Your task to perform on an android device: Go to sound settings Image 0: 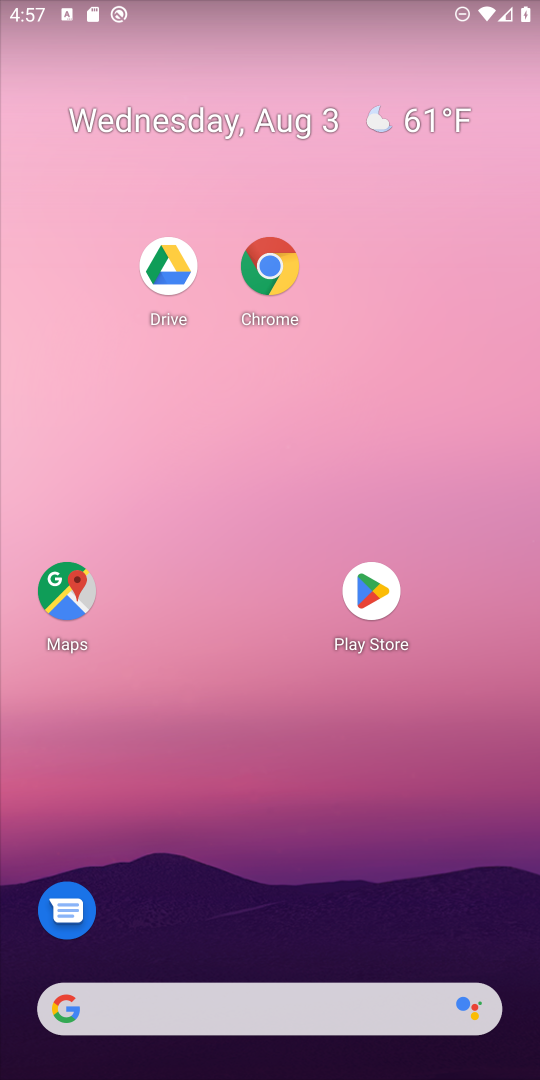
Step 0: drag from (317, 938) to (492, 77)
Your task to perform on an android device: Go to sound settings Image 1: 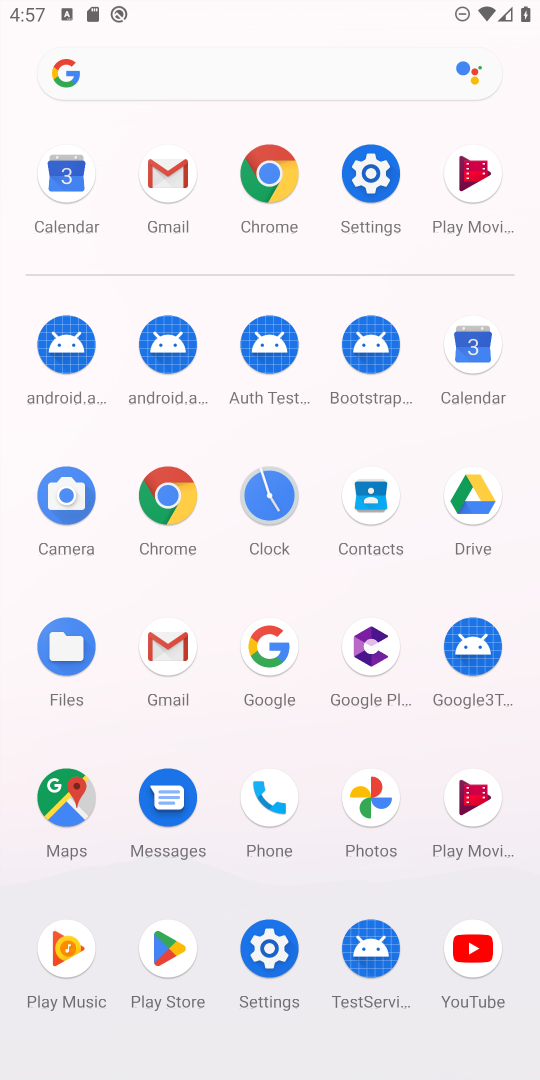
Step 1: click (366, 165)
Your task to perform on an android device: Go to sound settings Image 2: 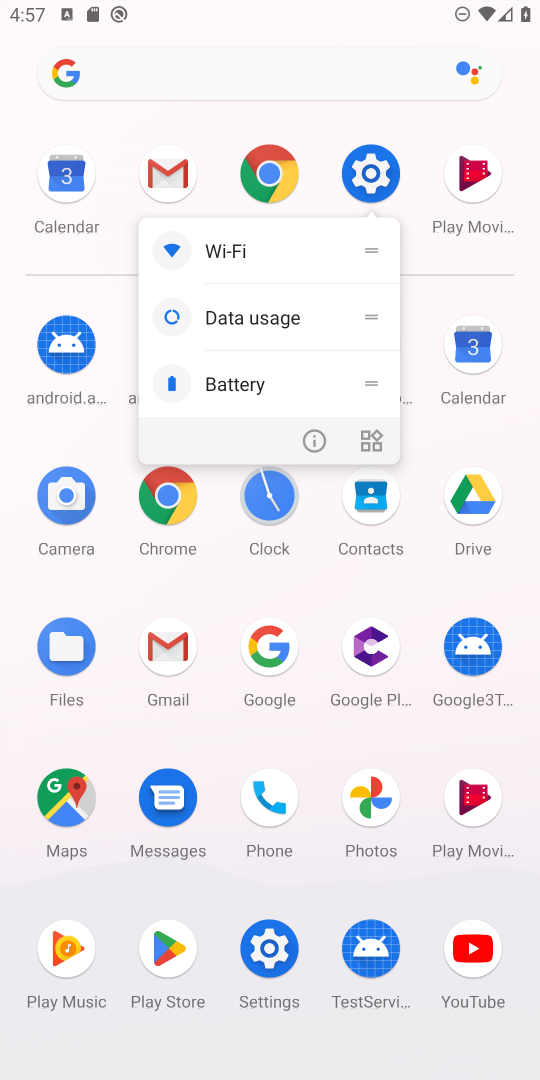
Step 2: click (381, 171)
Your task to perform on an android device: Go to sound settings Image 3: 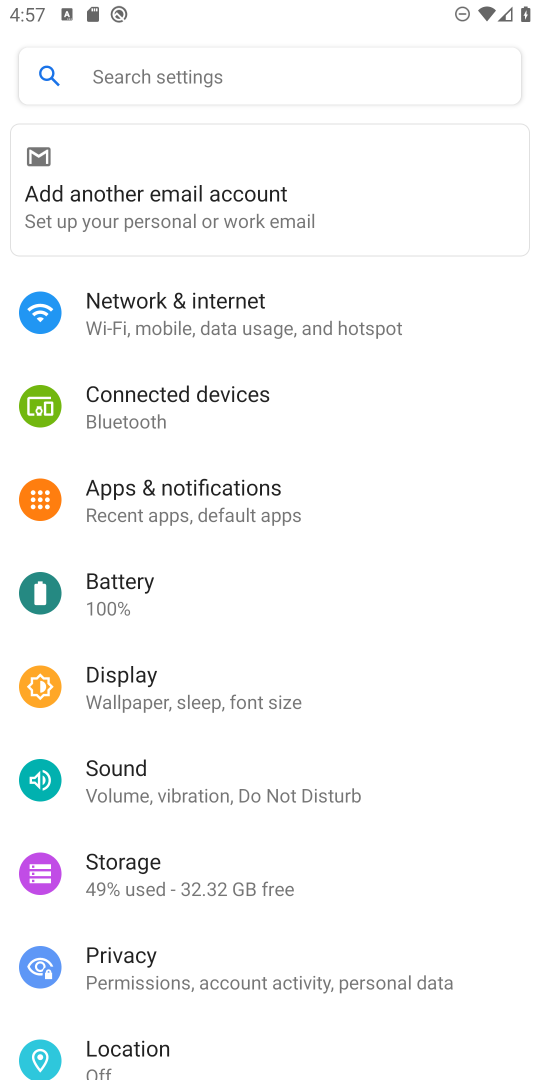
Step 3: click (141, 780)
Your task to perform on an android device: Go to sound settings Image 4: 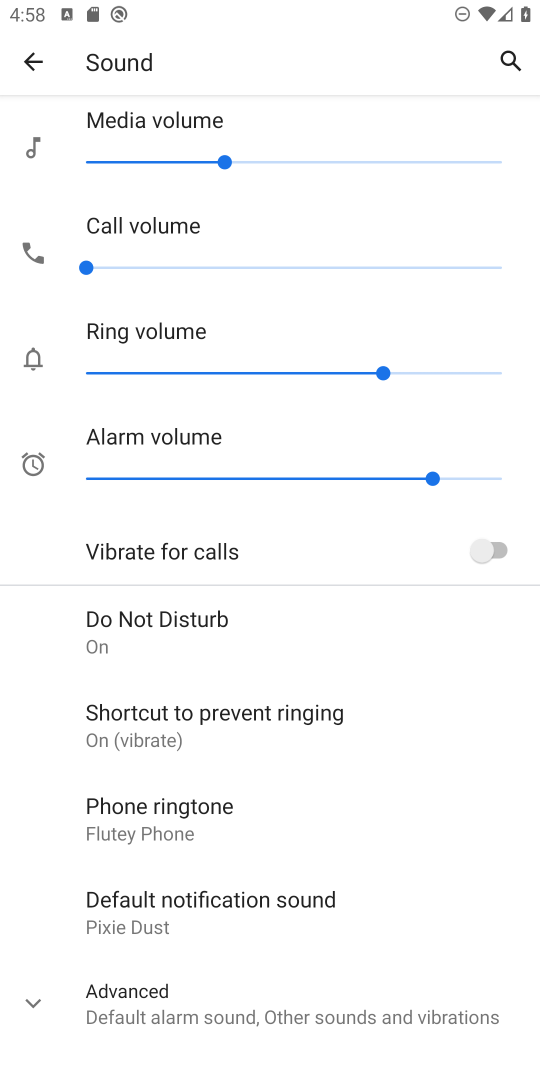
Step 4: task complete